Your task to perform on an android device: Search for a small bookcase on Ikea.com Image 0: 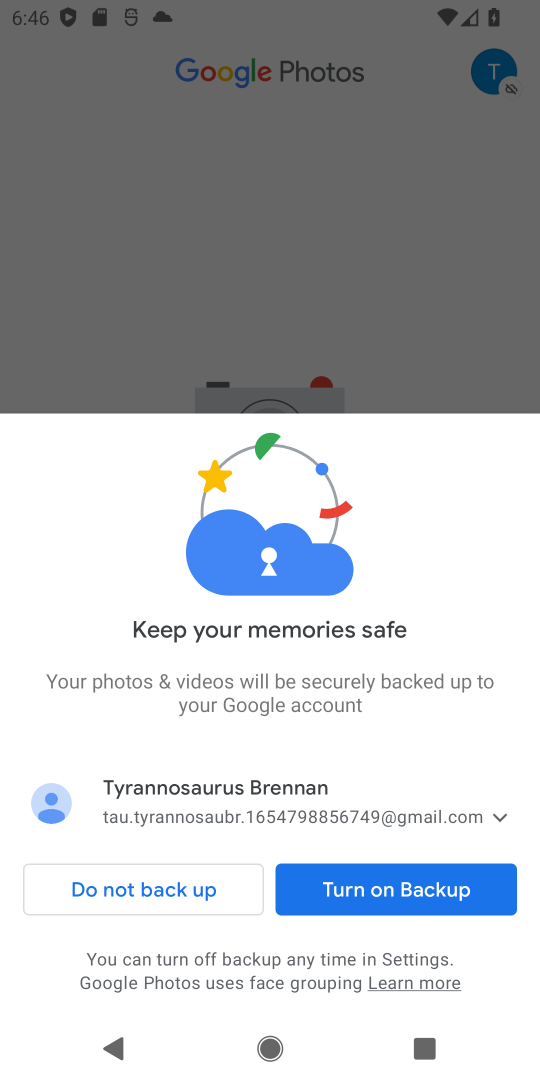
Step 0: press home button
Your task to perform on an android device: Search for a small bookcase on Ikea.com Image 1: 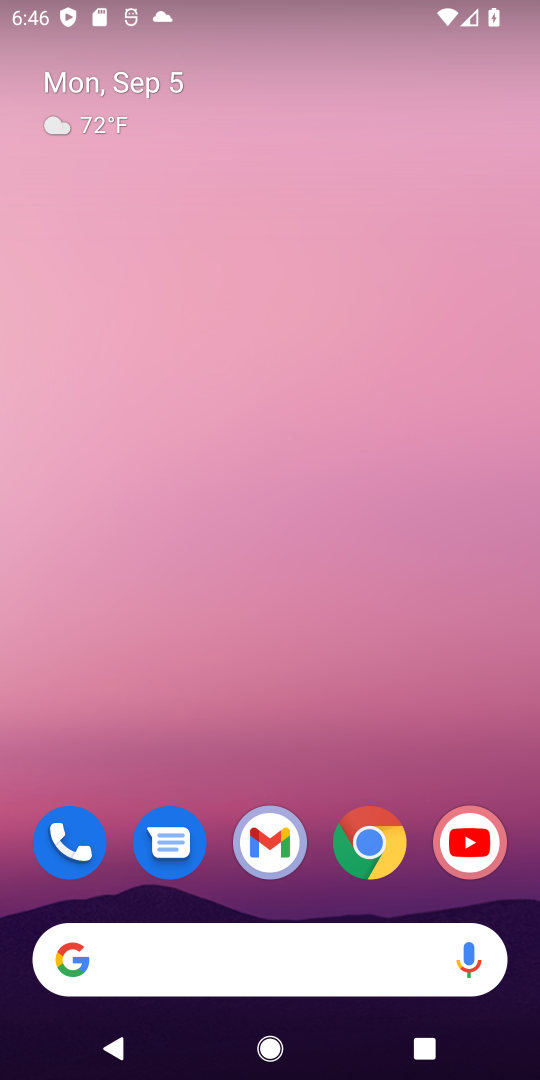
Step 1: click (237, 958)
Your task to perform on an android device: Search for a small bookcase on Ikea.com Image 2: 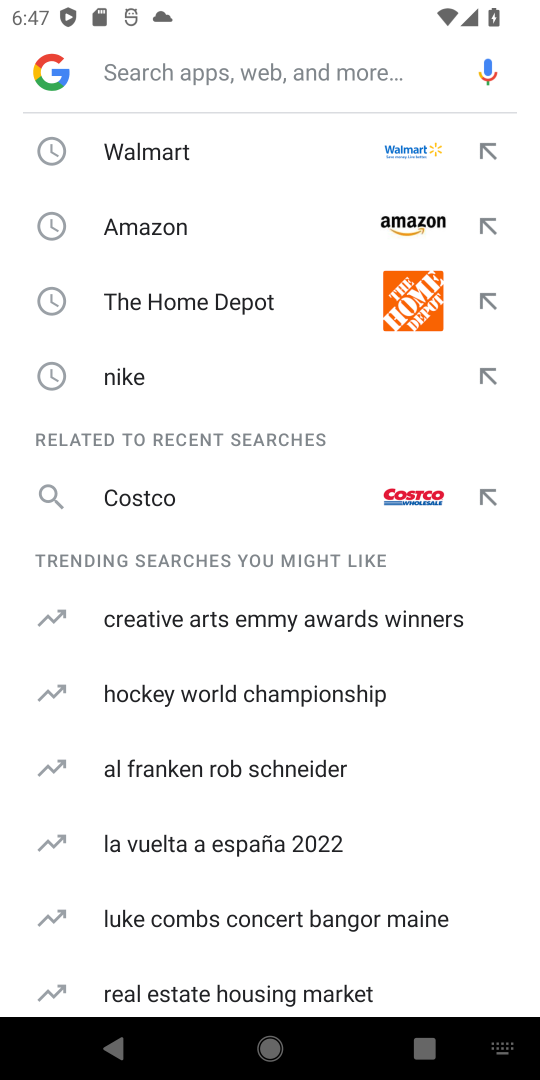
Step 2: type "Ikea.com"
Your task to perform on an android device: Search for a small bookcase on Ikea.com Image 3: 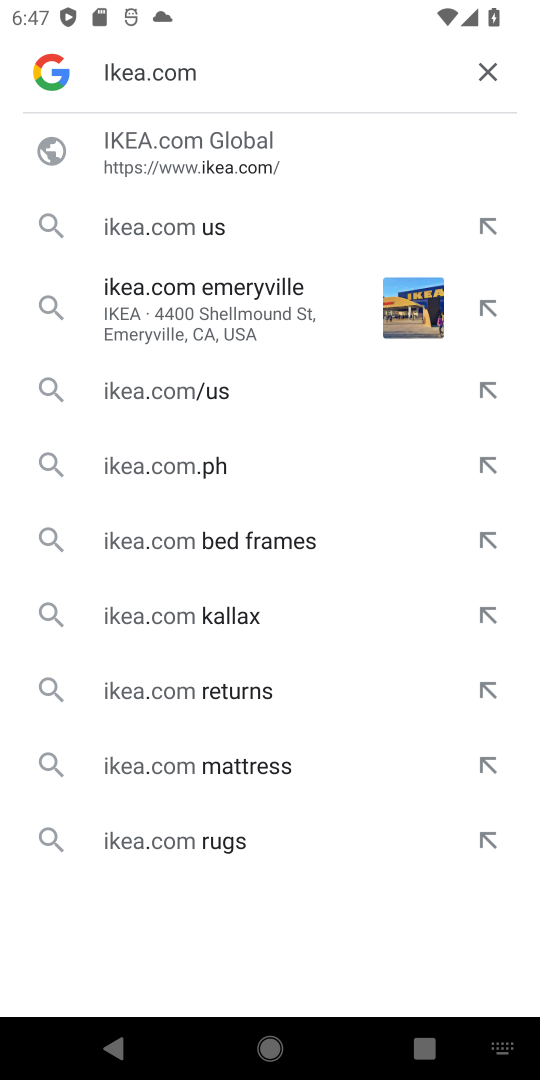
Step 3: click (205, 184)
Your task to perform on an android device: Search for a small bookcase on Ikea.com Image 4: 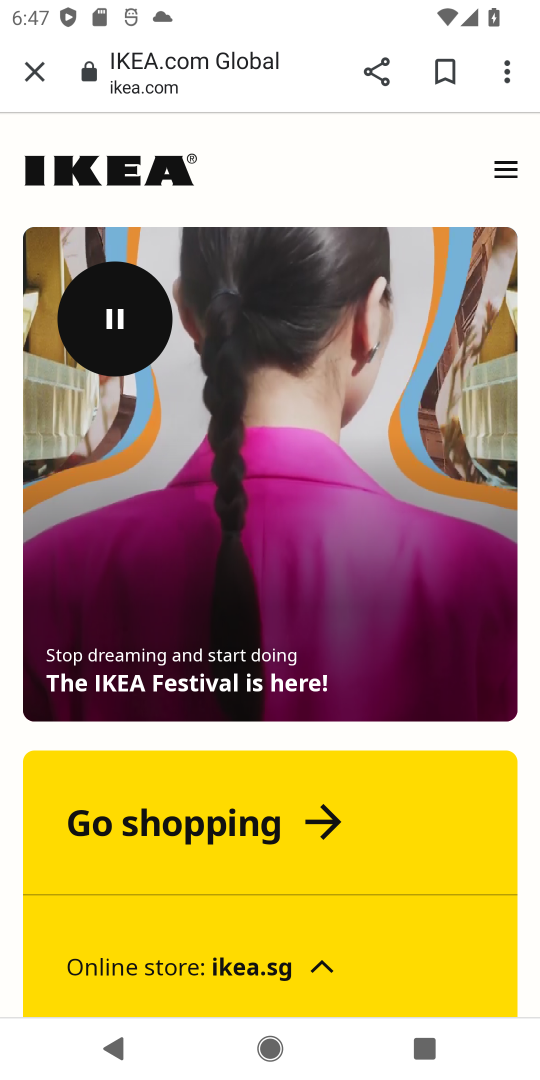
Step 4: click (331, 822)
Your task to perform on an android device: Search for a small bookcase on Ikea.com Image 5: 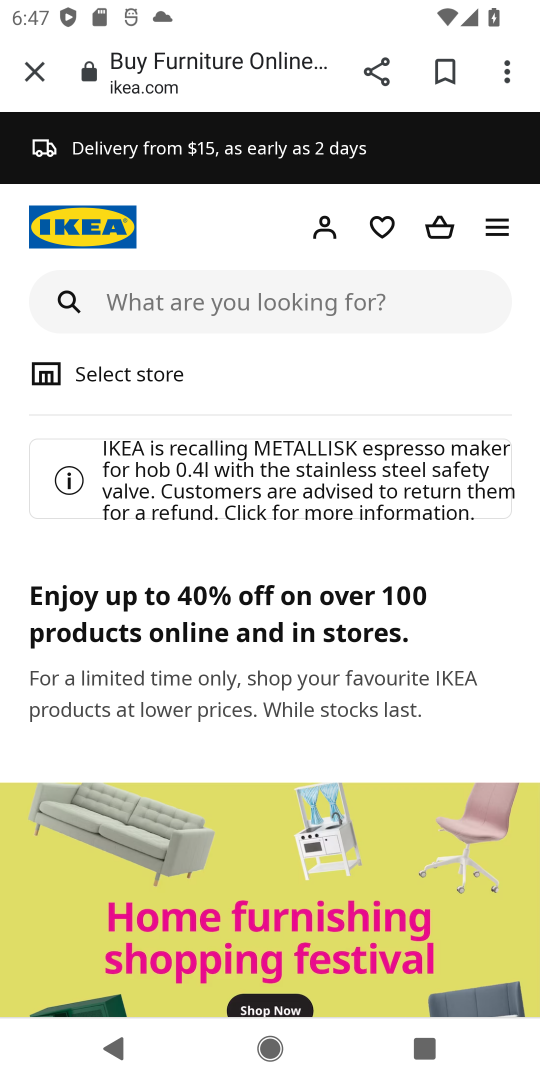
Step 5: click (313, 318)
Your task to perform on an android device: Search for a small bookcase on Ikea.com Image 6: 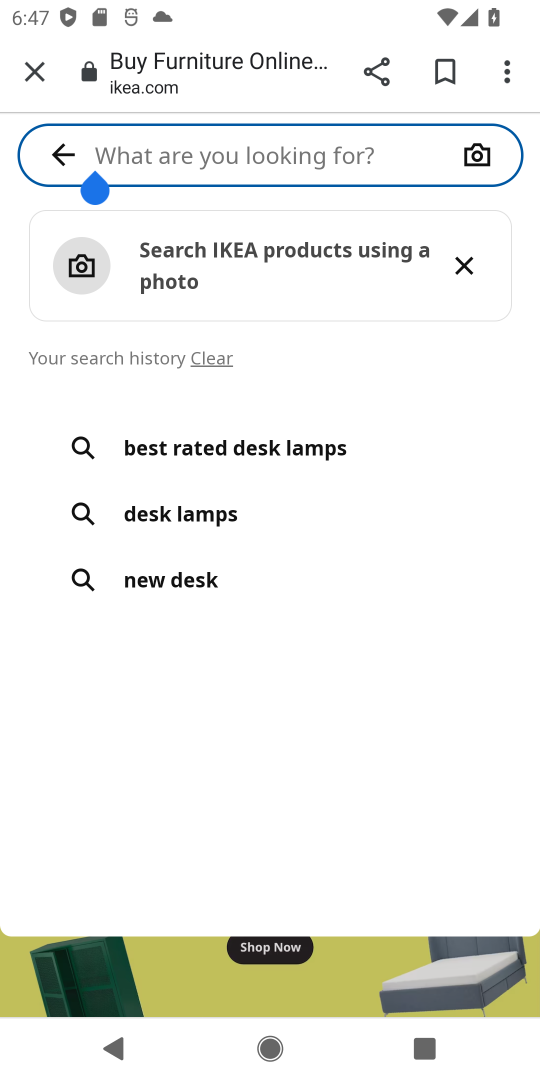
Step 6: type "small bookcase"
Your task to perform on an android device: Search for a small bookcase on Ikea.com Image 7: 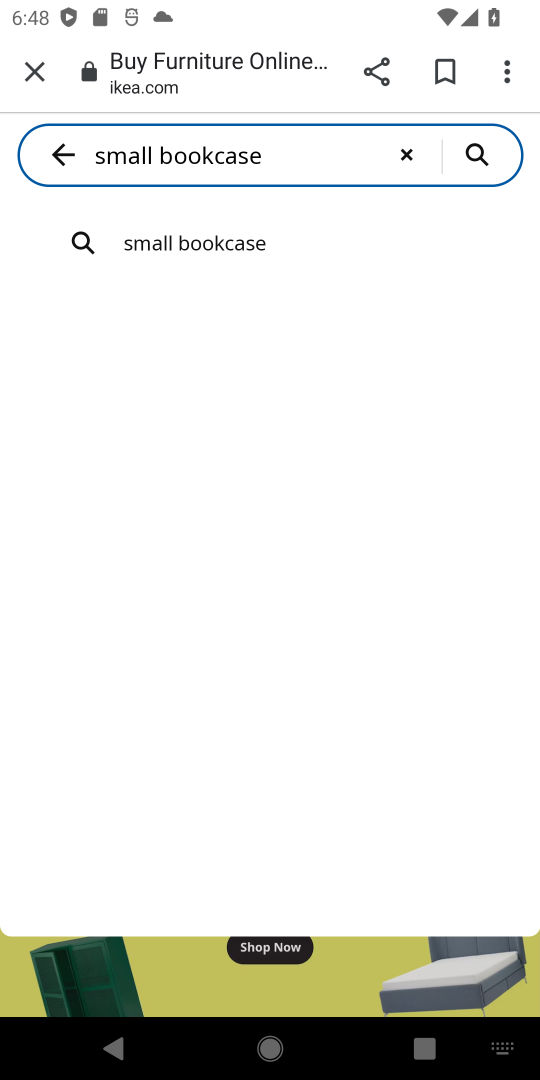
Step 7: click (272, 249)
Your task to perform on an android device: Search for a small bookcase on Ikea.com Image 8: 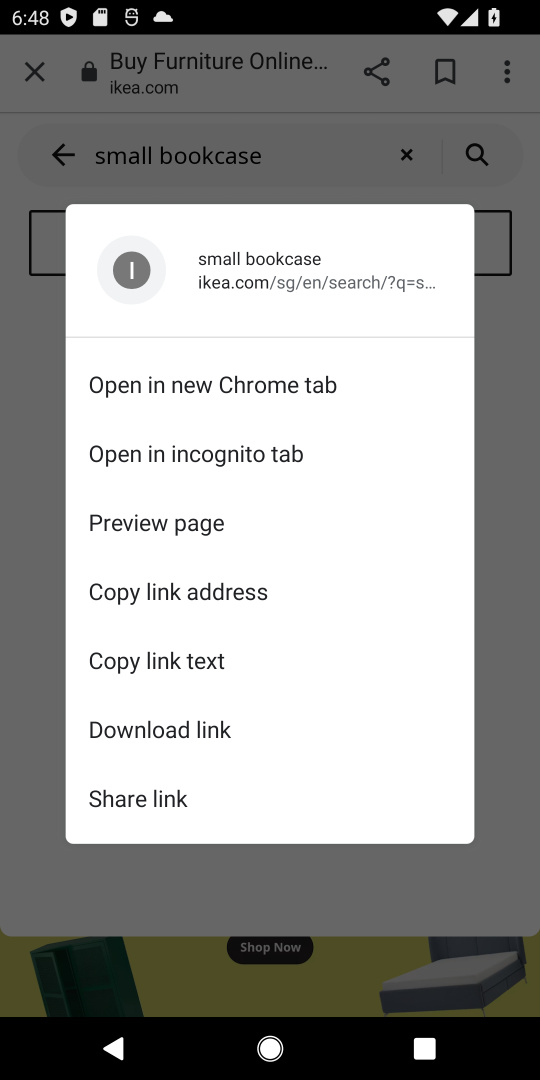
Step 8: click (25, 469)
Your task to perform on an android device: Search for a small bookcase on Ikea.com Image 9: 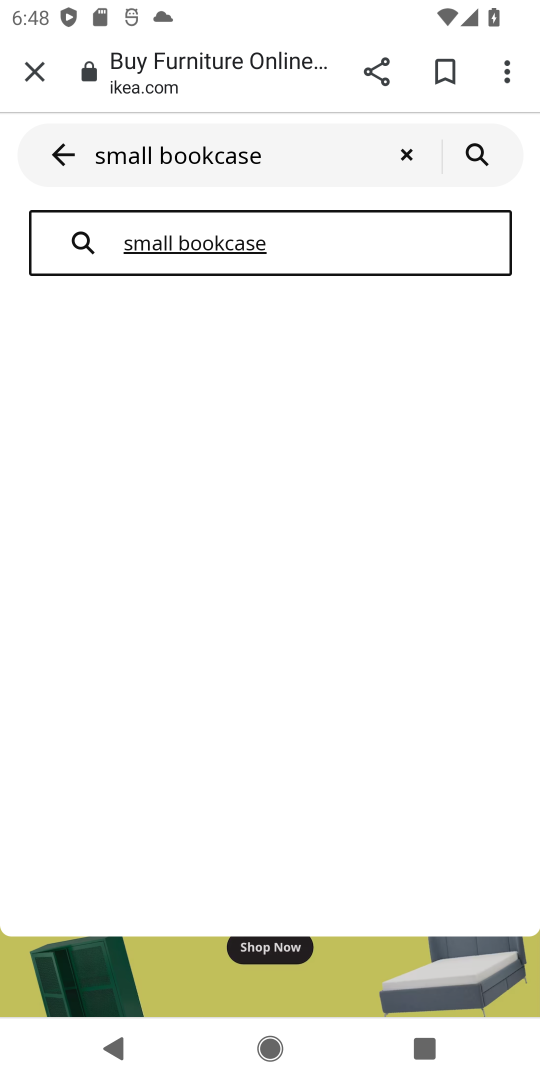
Step 9: click (465, 155)
Your task to perform on an android device: Search for a small bookcase on Ikea.com Image 10: 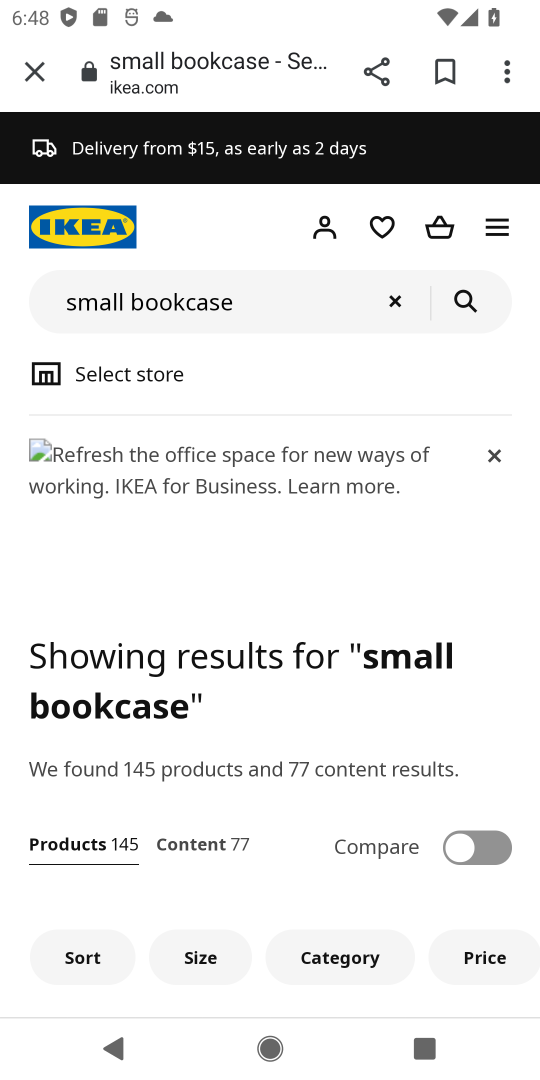
Step 10: task complete